Your task to perform on an android device: turn on improve location accuracy Image 0: 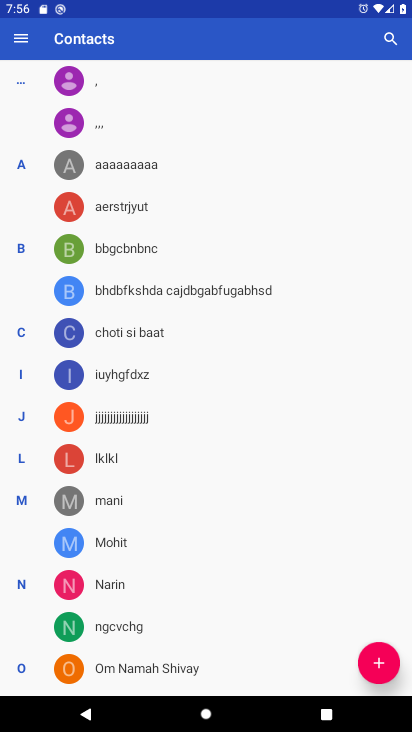
Step 0: press home button
Your task to perform on an android device: turn on improve location accuracy Image 1: 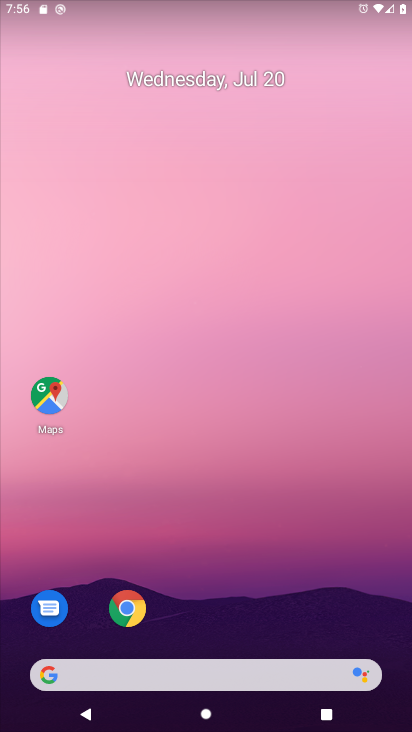
Step 1: drag from (229, 616) to (248, 163)
Your task to perform on an android device: turn on improve location accuracy Image 2: 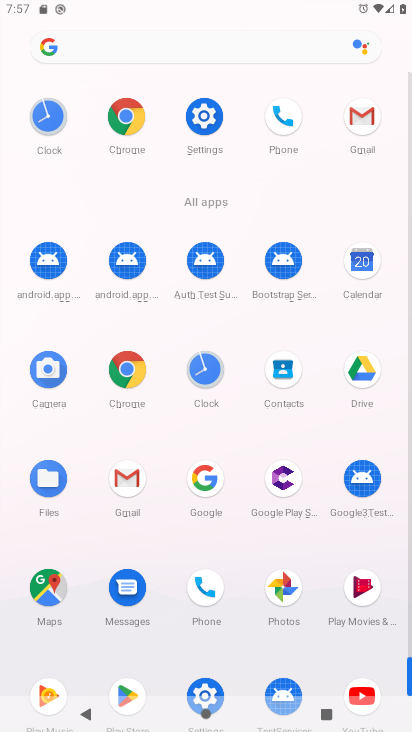
Step 2: click (201, 110)
Your task to perform on an android device: turn on improve location accuracy Image 3: 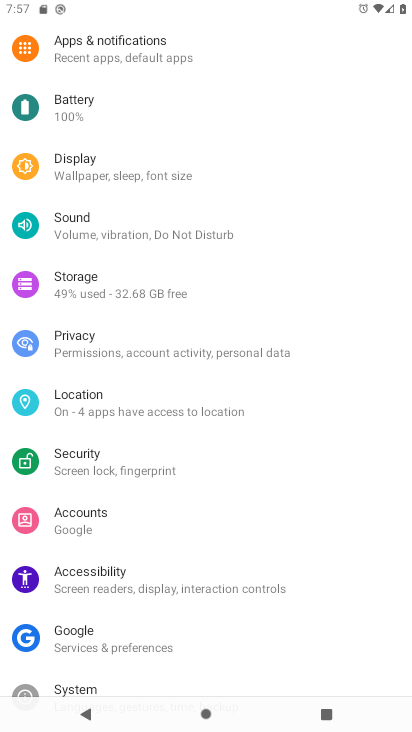
Step 3: click (122, 410)
Your task to perform on an android device: turn on improve location accuracy Image 4: 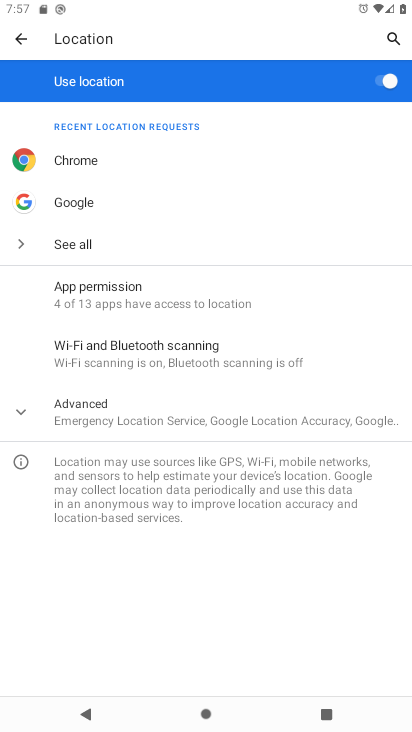
Step 4: click (168, 425)
Your task to perform on an android device: turn on improve location accuracy Image 5: 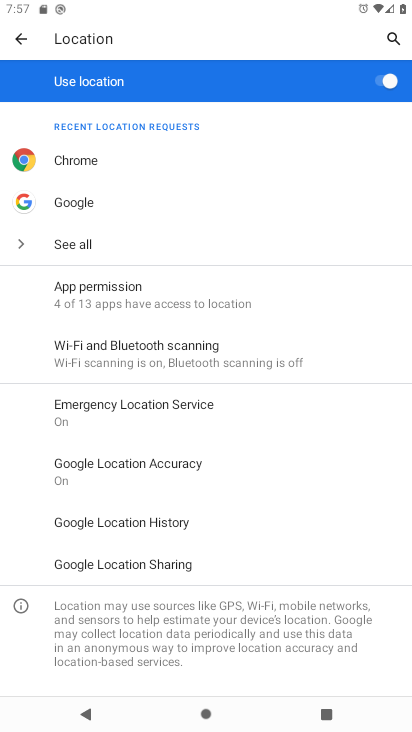
Step 5: click (150, 493)
Your task to perform on an android device: turn on improve location accuracy Image 6: 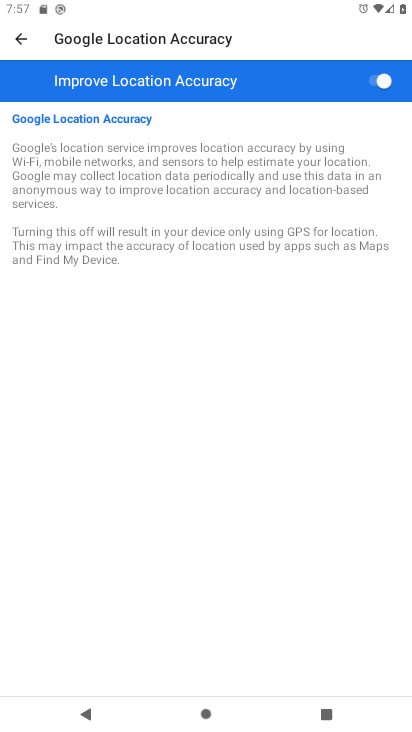
Step 6: task complete